Your task to perform on an android device: What is the recent news? Image 0: 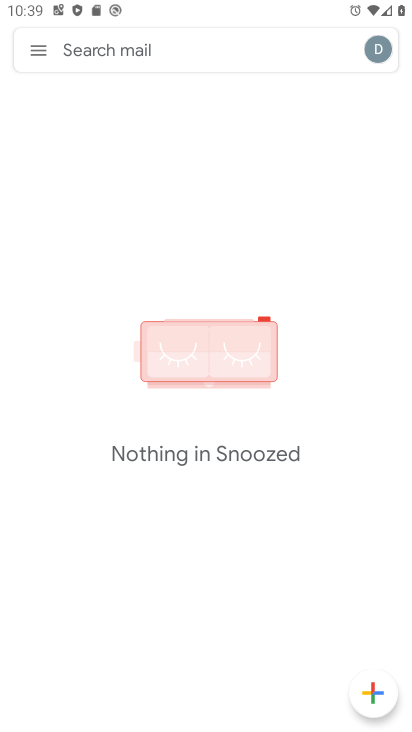
Step 0: press home button
Your task to perform on an android device: What is the recent news? Image 1: 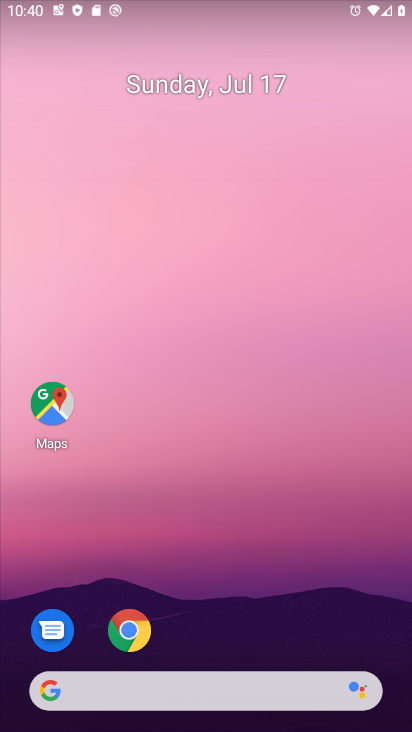
Step 1: task complete